Your task to perform on an android device: turn on javascript in the chrome app Image 0: 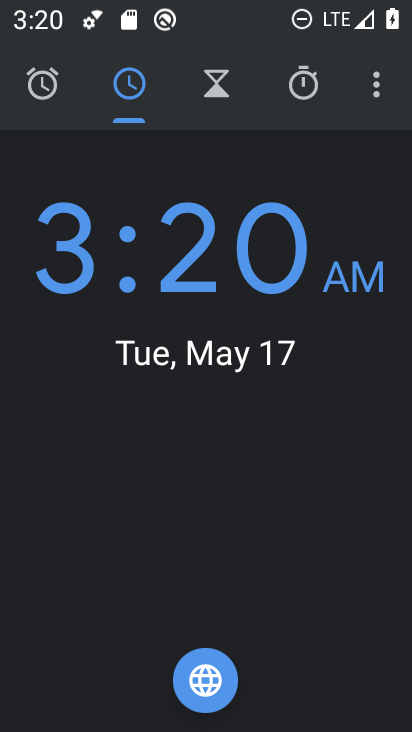
Step 0: press home button
Your task to perform on an android device: turn on javascript in the chrome app Image 1: 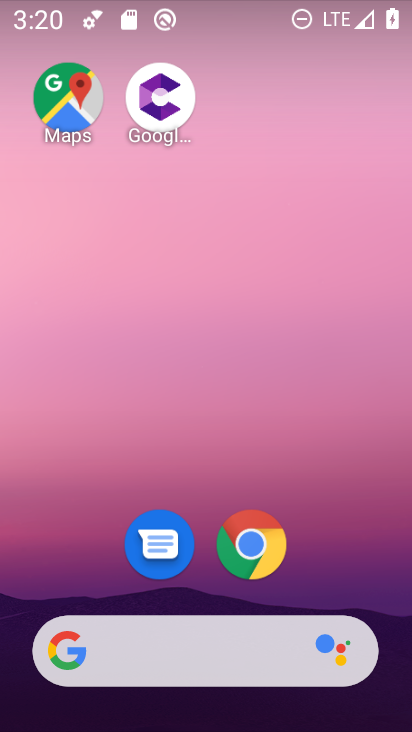
Step 1: drag from (390, 556) to (385, 108)
Your task to perform on an android device: turn on javascript in the chrome app Image 2: 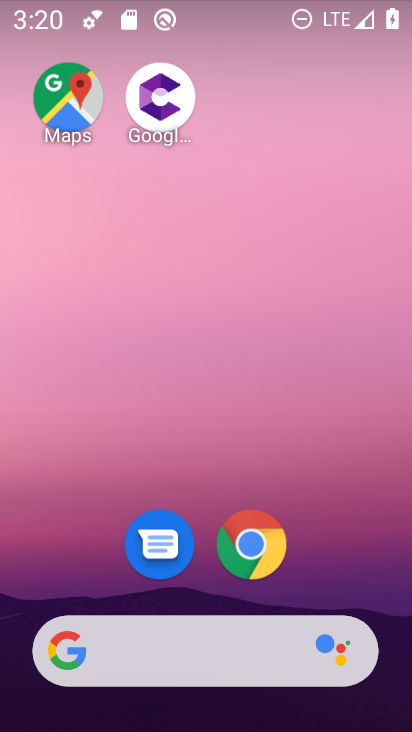
Step 2: drag from (360, 547) to (362, 240)
Your task to perform on an android device: turn on javascript in the chrome app Image 3: 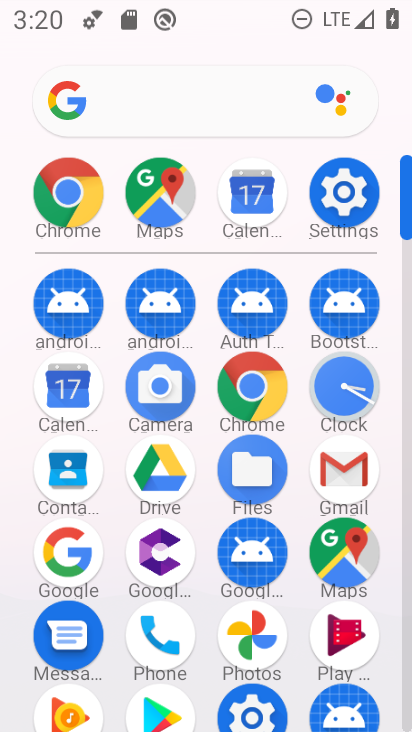
Step 3: click (266, 406)
Your task to perform on an android device: turn on javascript in the chrome app Image 4: 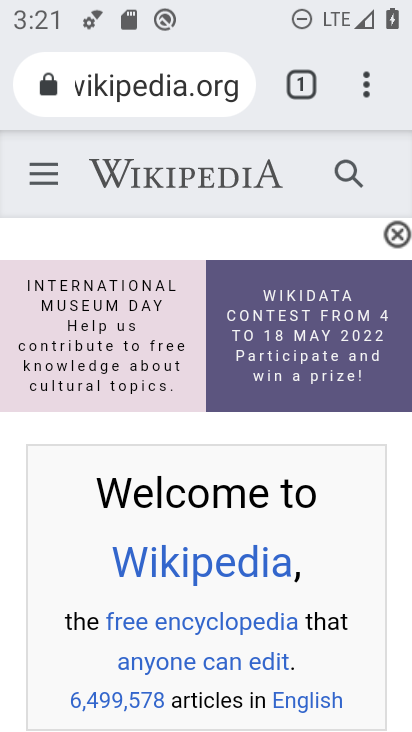
Step 4: click (366, 71)
Your task to perform on an android device: turn on javascript in the chrome app Image 5: 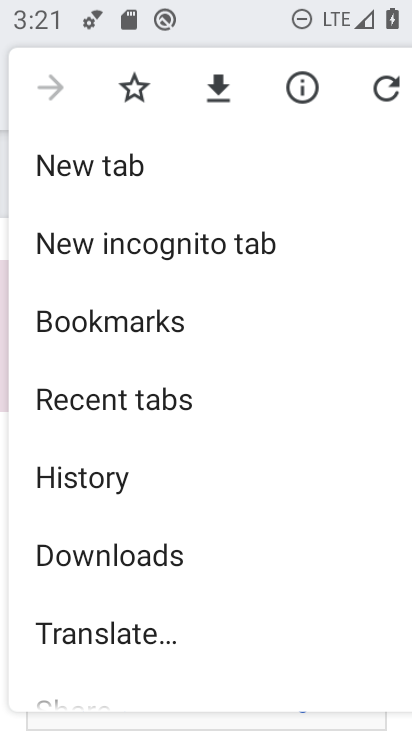
Step 5: drag from (365, 536) to (352, 430)
Your task to perform on an android device: turn on javascript in the chrome app Image 6: 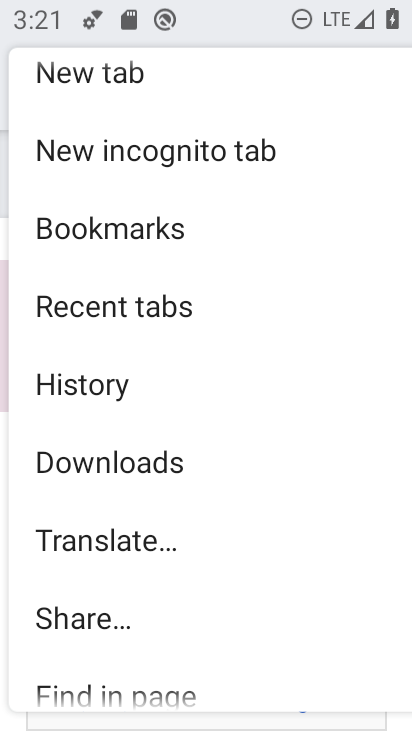
Step 6: drag from (326, 596) to (327, 462)
Your task to perform on an android device: turn on javascript in the chrome app Image 7: 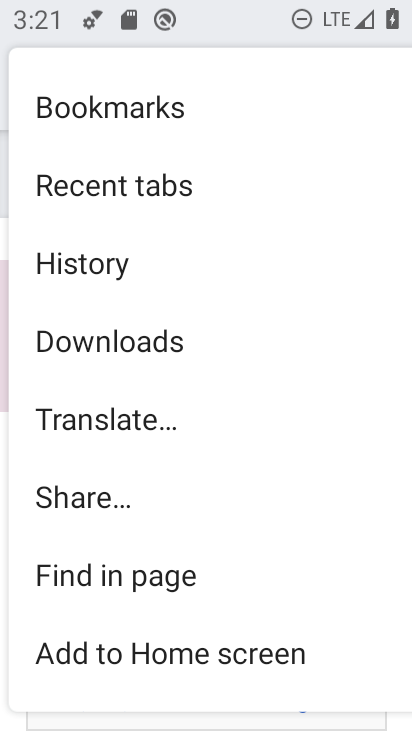
Step 7: drag from (306, 622) to (330, 488)
Your task to perform on an android device: turn on javascript in the chrome app Image 8: 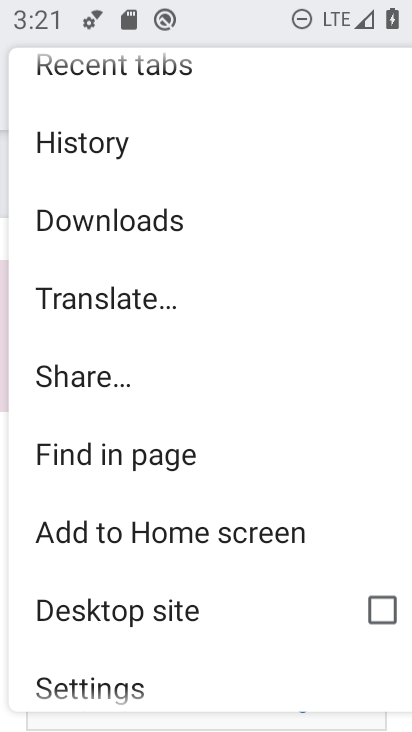
Step 8: drag from (315, 653) to (315, 522)
Your task to perform on an android device: turn on javascript in the chrome app Image 9: 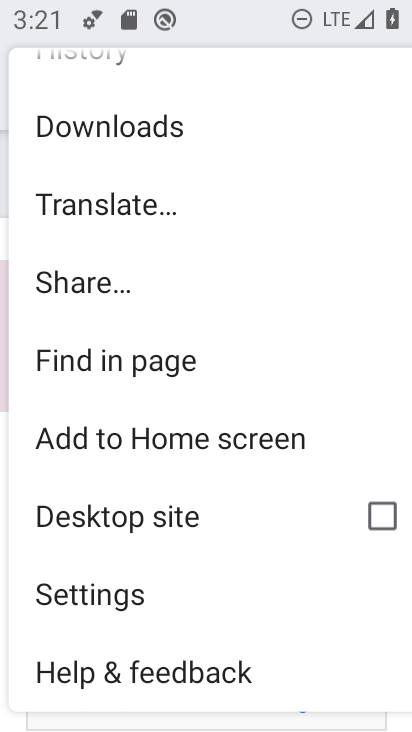
Step 9: drag from (332, 628) to (333, 497)
Your task to perform on an android device: turn on javascript in the chrome app Image 10: 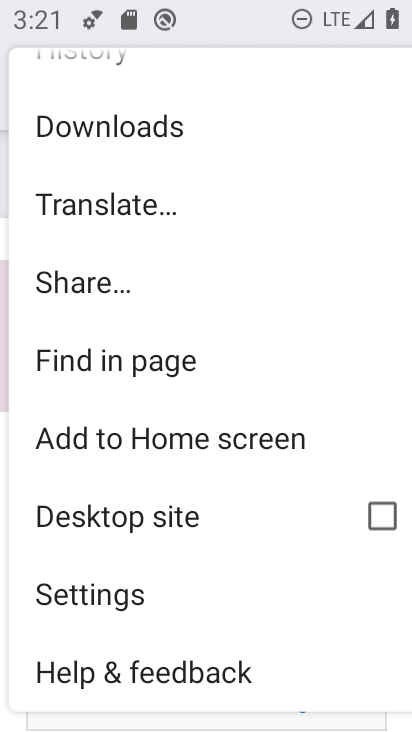
Step 10: drag from (315, 638) to (321, 506)
Your task to perform on an android device: turn on javascript in the chrome app Image 11: 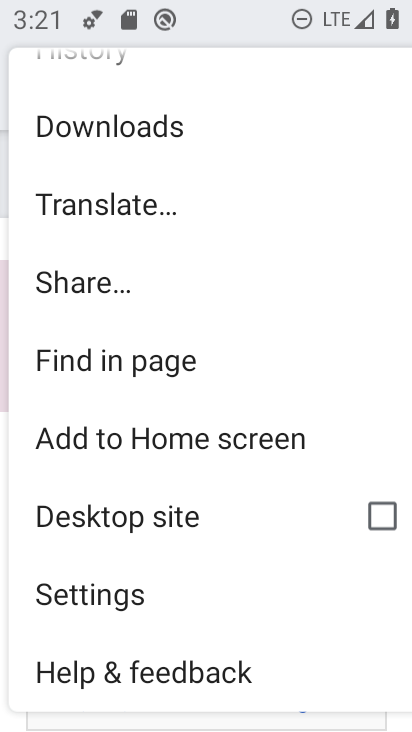
Step 11: click (223, 601)
Your task to perform on an android device: turn on javascript in the chrome app Image 12: 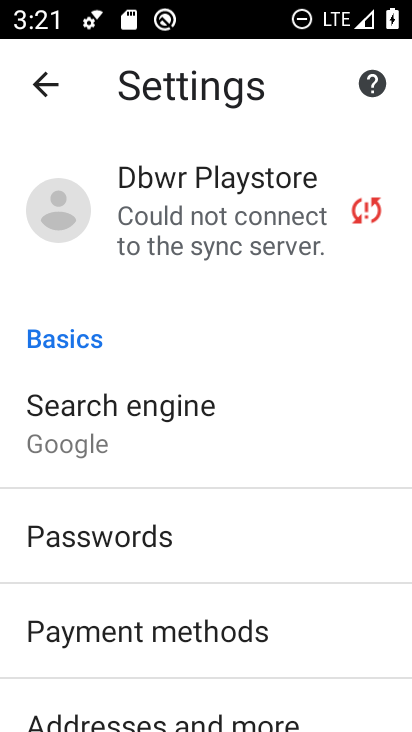
Step 12: drag from (342, 649) to (350, 548)
Your task to perform on an android device: turn on javascript in the chrome app Image 13: 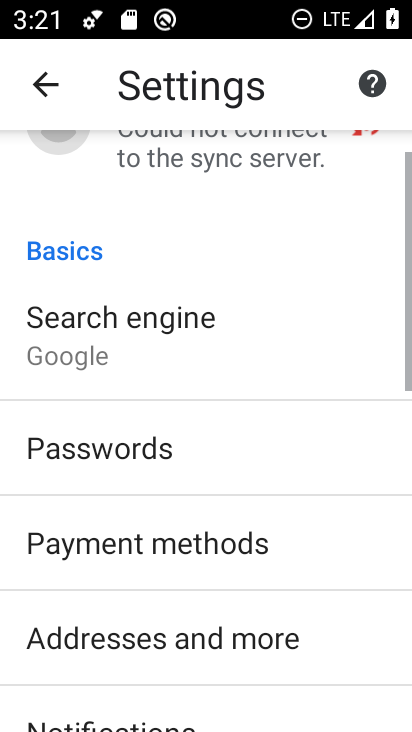
Step 13: click (346, 587)
Your task to perform on an android device: turn on javascript in the chrome app Image 14: 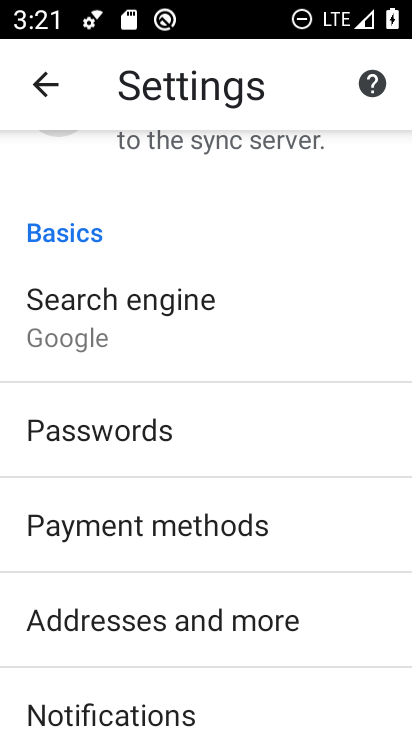
Step 14: drag from (355, 645) to (351, 537)
Your task to perform on an android device: turn on javascript in the chrome app Image 15: 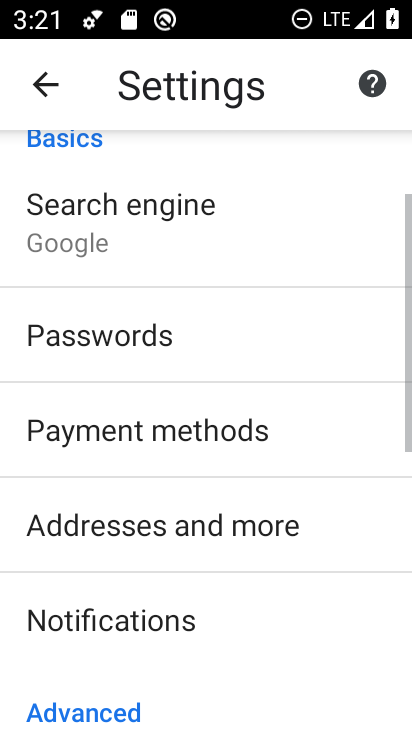
Step 15: drag from (341, 670) to (351, 573)
Your task to perform on an android device: turn on javascript in the chrome app Image 16: 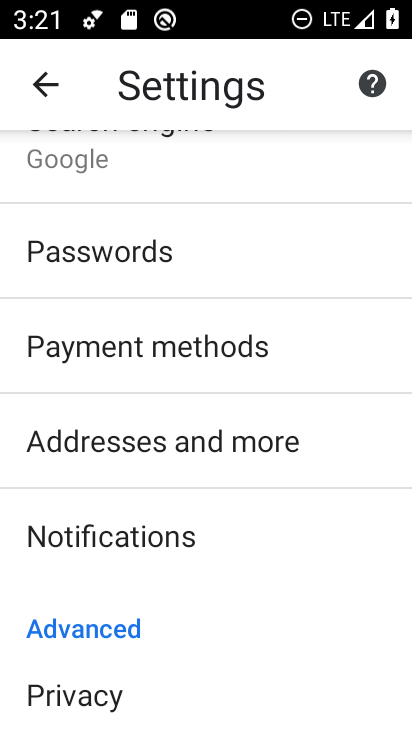
Step 16: drag from (354, 617) to (356, 576)
Your task to perform on an android device: turn on javascript in the chrome app Image 17: 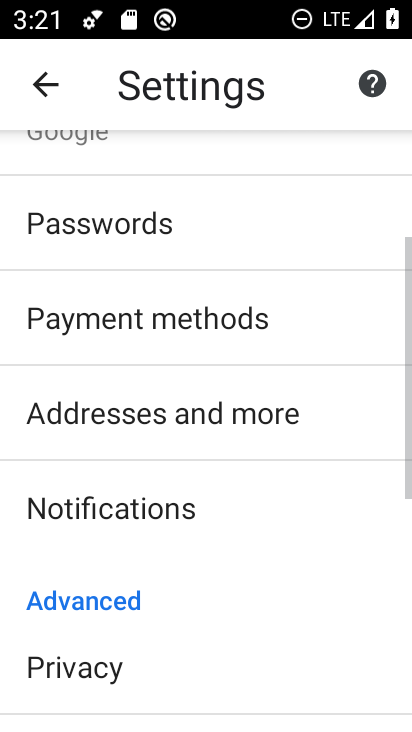
Step 17: drag from (348, 667) to (350, 582)
Your task to perform on an android device: turn on javascript in the chrome app Image 18: 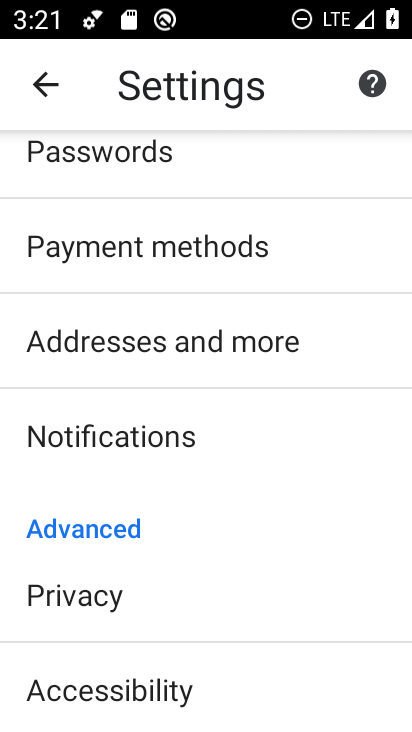
Step 18: drag from (345, 682) to (353, 602)
Your task to perform on an android device: turn on javascript in the chrome app Image 19: 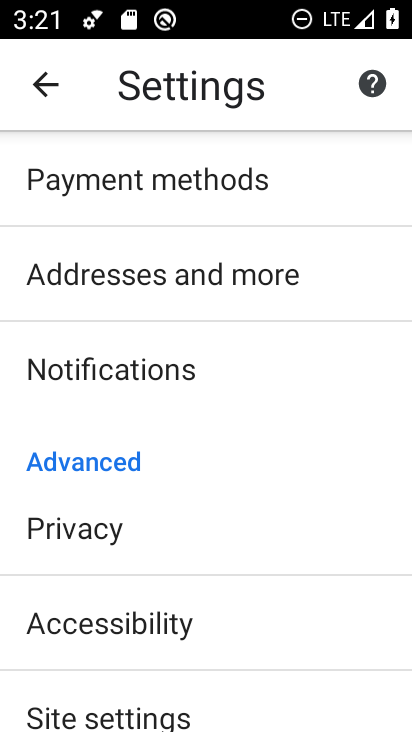
Step 19: drag from (356, 648) to (363, 595)
Your task to perform on an android device: turn on javascript in the chrome app Image 20: 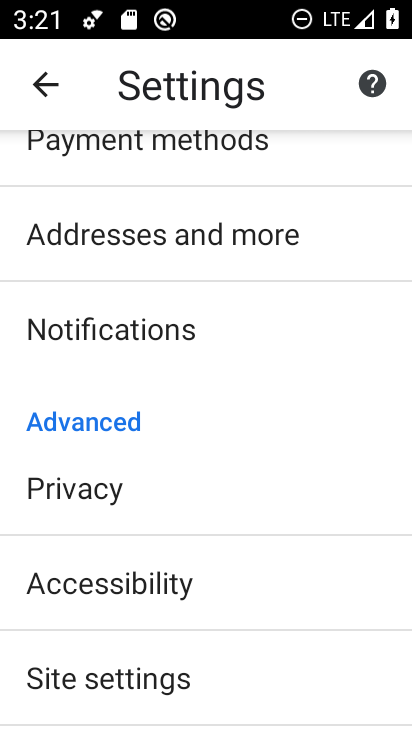
Step 20: drag from (322, 669) to (343, 547)
Your task to perform on an android device: turn on javascript in the chrome app Image 21: 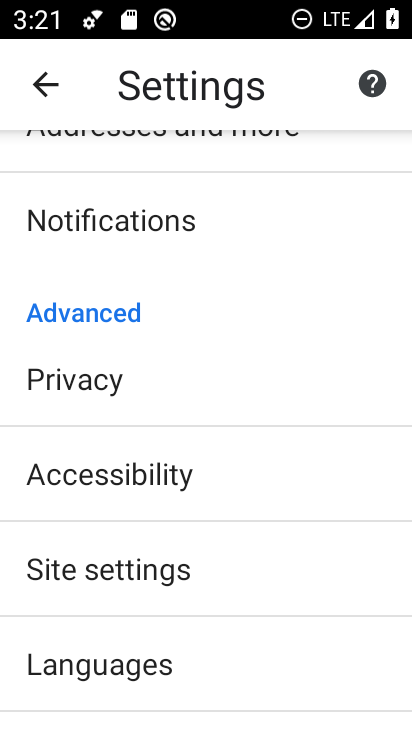
Step 21: drag from (351, 672) to (351, 578)
Your task to perform on an android device: turn on javascript in the chrome app Image 22: 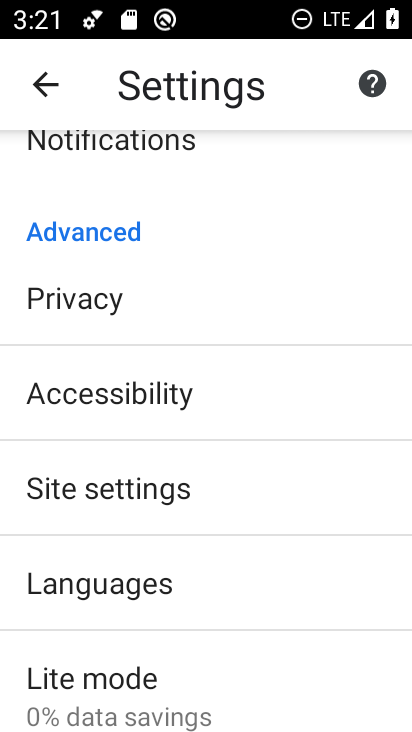
Step 22: click (310, 475)
Your task to perform on an android device: turn on javascript in the chrome app Image 23: 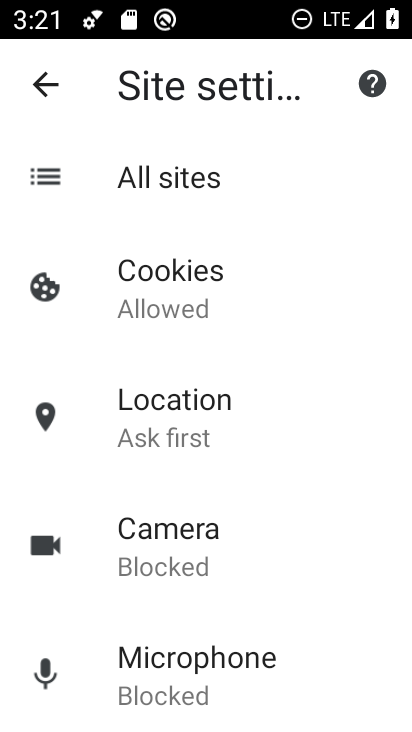
Step 23: drag from (315, 626) to (318, 522)
Your task to perform on an android device: turn on javascript in the chrome app Image 24: 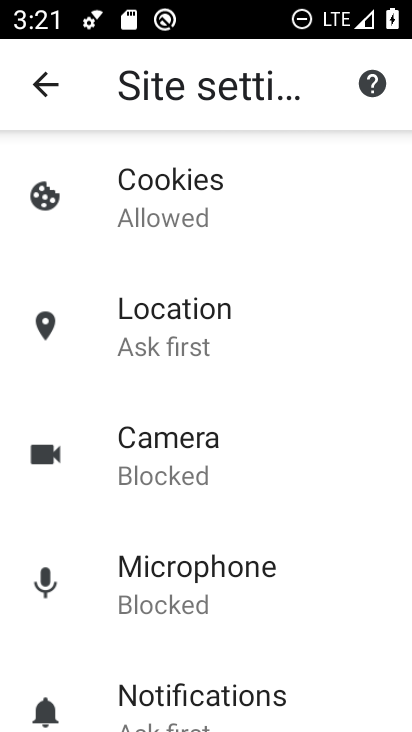
Step 24: drag from (309, 626) to (308, 510)
Your task to perform on an android device: turn on javascript in the chrome app Image 25: 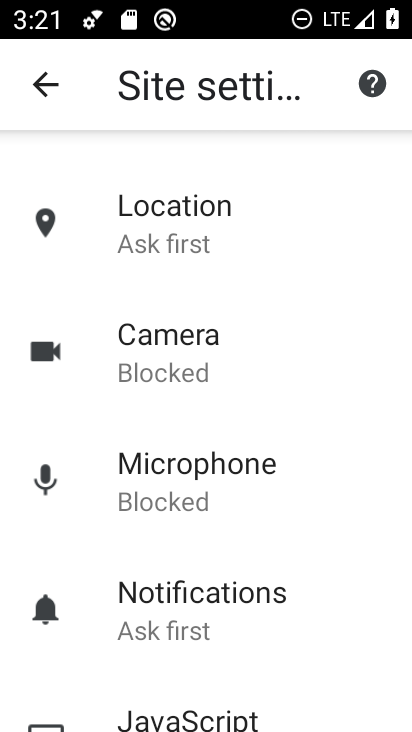
Step 25: drag from (330, 646) to (330, 527)
Your task to perform on an android device: turn on javascript in the chrome app Image 26: 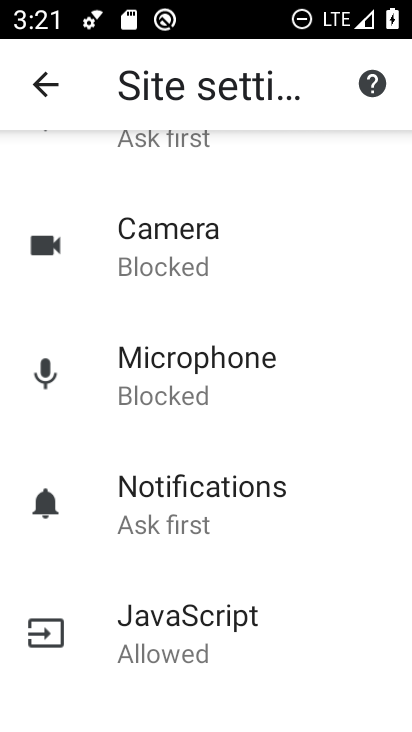
Step 26: drag from (326, 654) to (328, 533)
Your task to perform on an android device: turn on javascript in the chrome app Image 27: 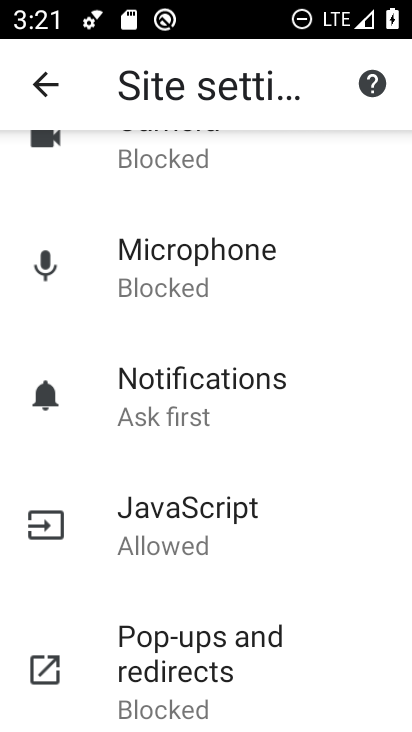
Step 27: drag from (348, 660) to (356, 588)
Your task to perform on an android device: turn on javascript in the chrome app Image 28: 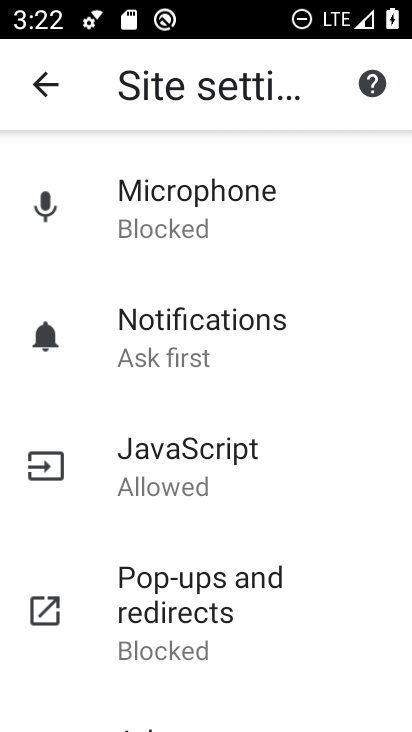
Step 28: click (232, 449)
Your task to perform on an android device: turn on javascript in the chrome app Image 29: 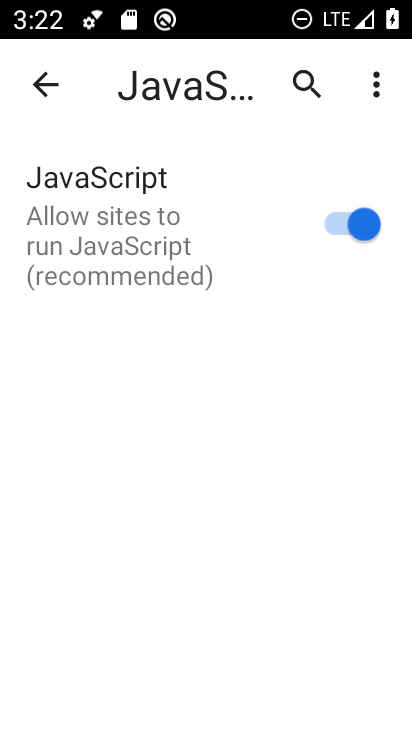
Step 29: task complete